Your task to perform on an android device: Empty the shopping cart on walmart. Image 0: 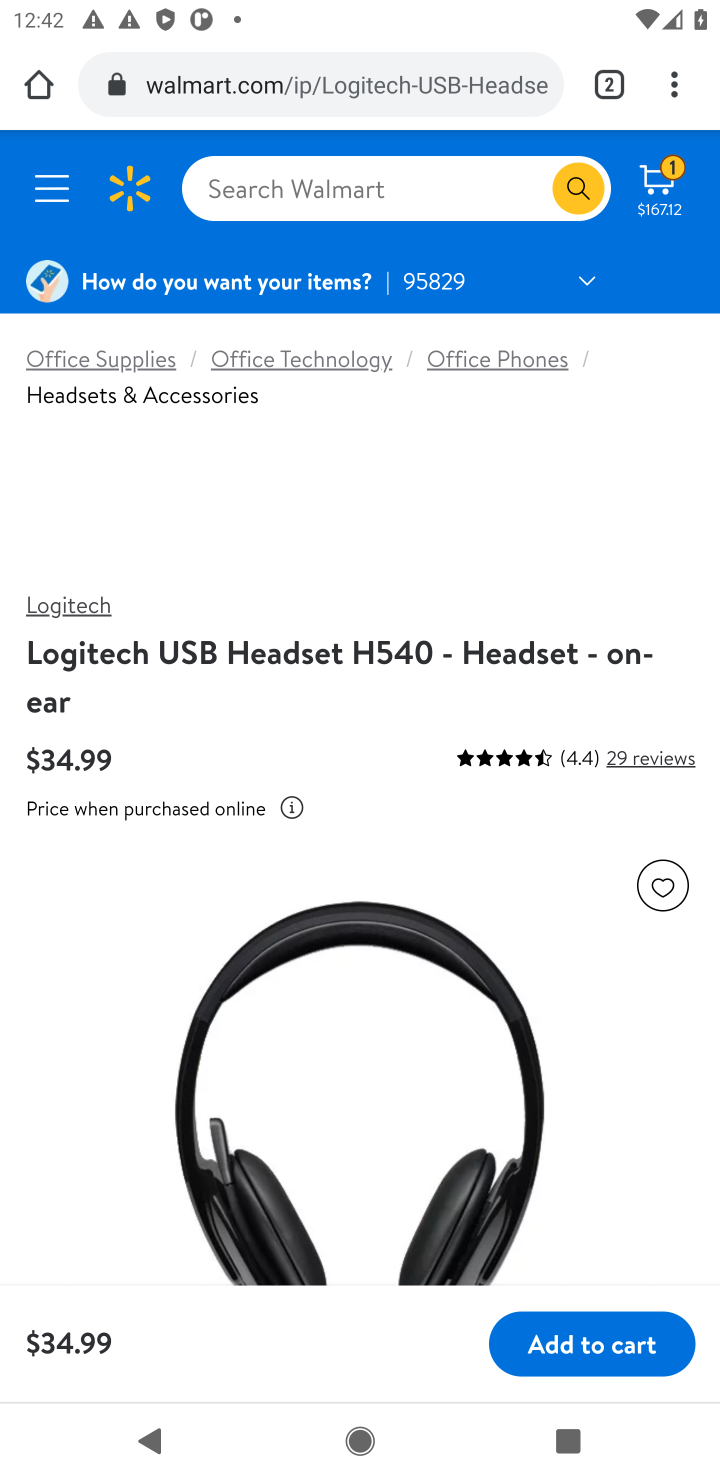
Step 0: click (656, 204)
Your task to perform on an android device: Empty the shopping cart on walmart. Image 1: 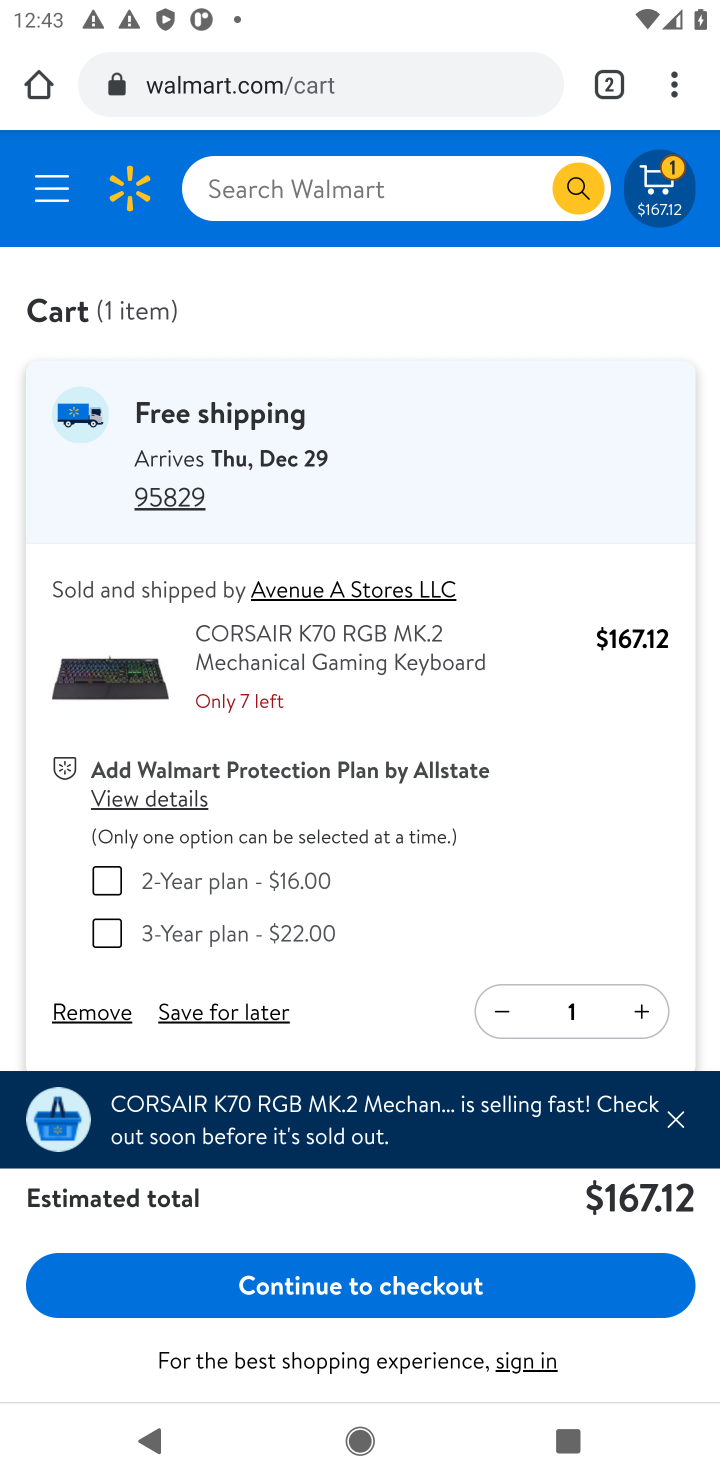
Step 1: click (68, 1019)
Your task to perform on an android device: Empty the shopping cart on walmart. Image 2: 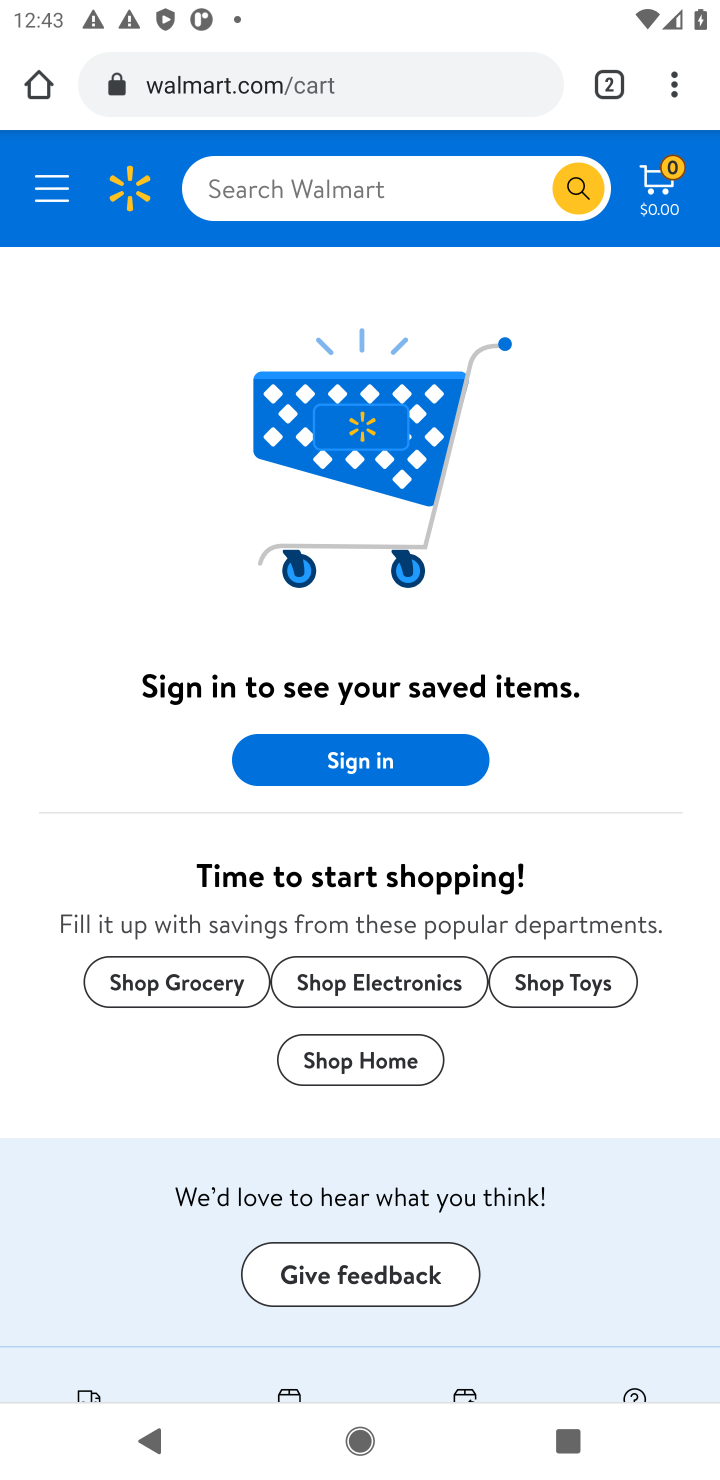
Step 2: task complete